Your task to perform on an android device: Set the phone to "Do not disturb". Image 0: 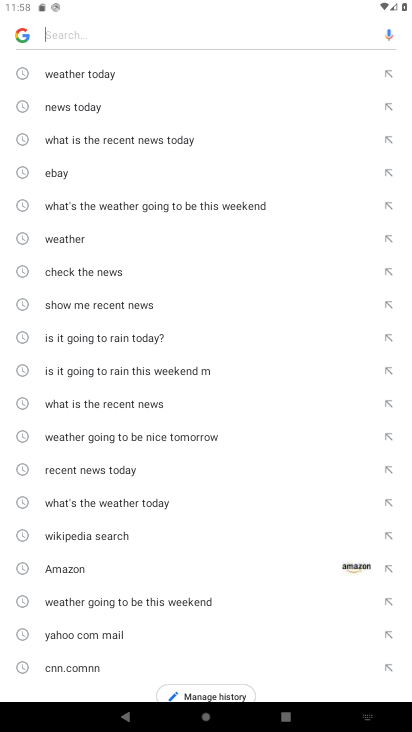
Step 0: press back button
Your task to perform on an android device: Set the phone to "Do not disturb". Image 1: 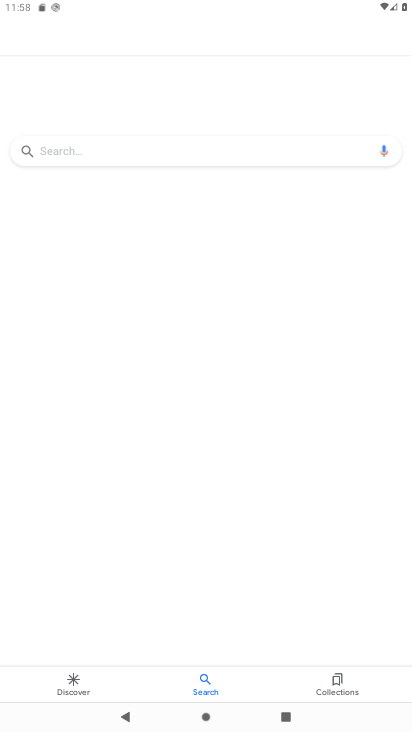
Step 1: press back button
Your task to perform on an android device: Set the phone to "Do not disturb". Image 2: 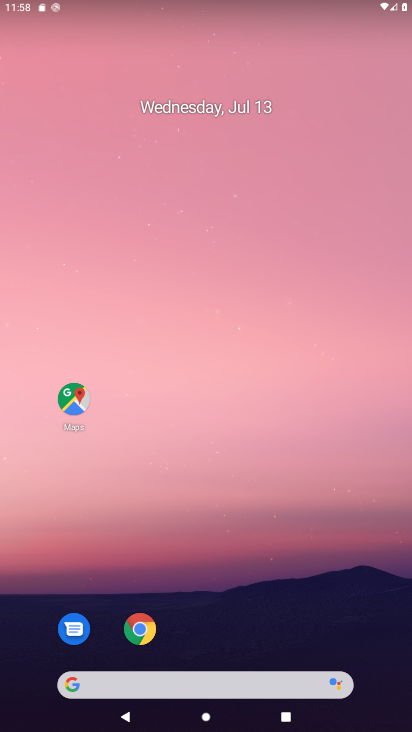
Step 2: drag from (278, 636) to (286, 177)
Your task to perform on an android device: Set the phone to "Do not disturb". Image 3: 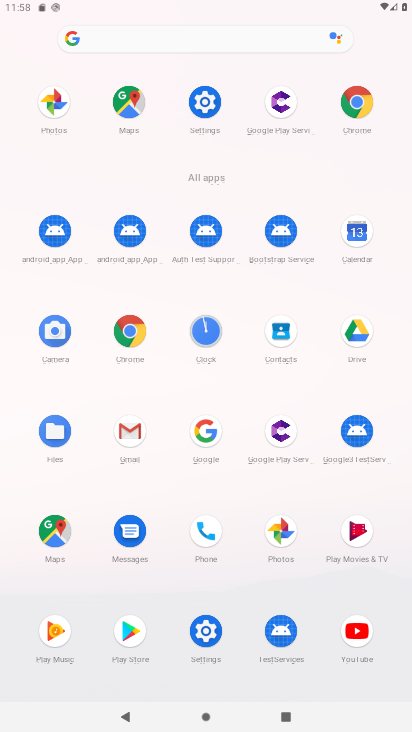
Step 3: click (196, 113)
Your task to perform on an android device: Set the phone to "Do not disturb". Image 4: 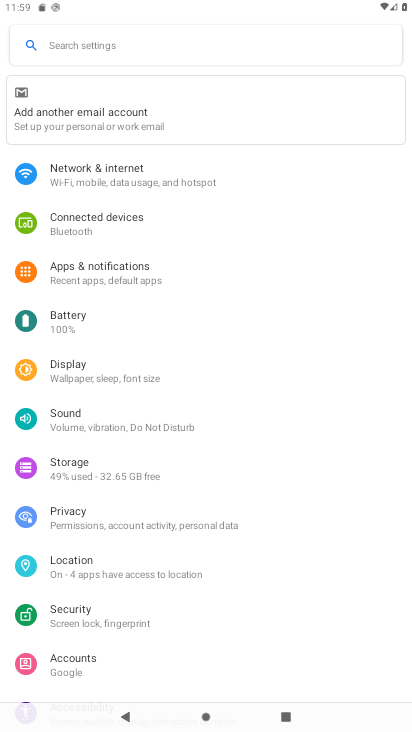
Step 4: click (163, 426)
Your task to perform on an android device: Set the phone to "Do not disturb". Image 5: 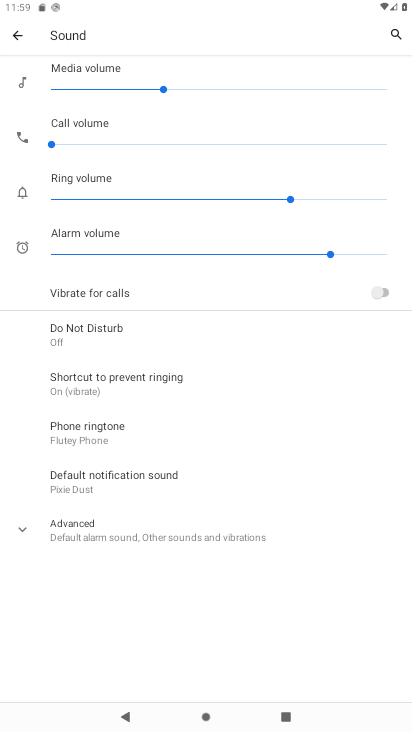
Step 5: click (111, 340)
Your task to perform on an android device: Set the phone to "Do not disturb". Image 6: 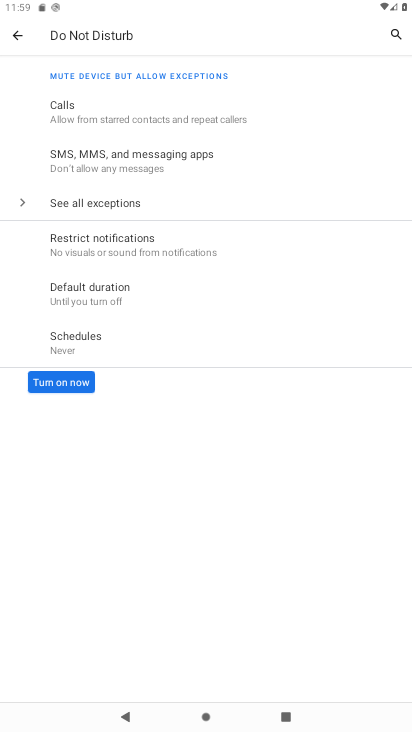
Step 6: click (57, 386)
Your task to perform on an android device: Set the phone to "Do not disturb". Image 7: 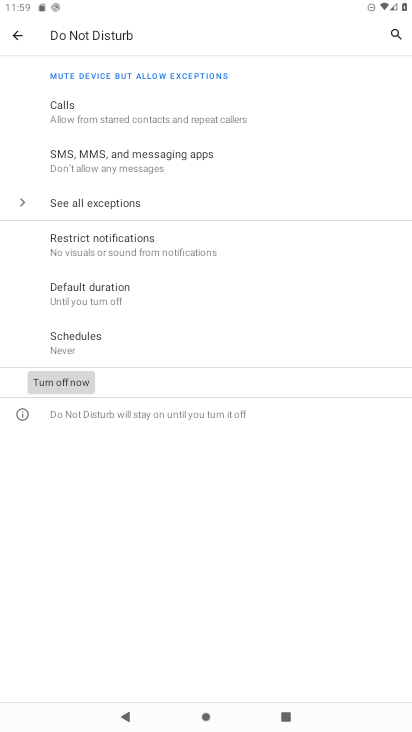
Step 7: task complete